Your task to perform on an android device: turn off location history Image 0: 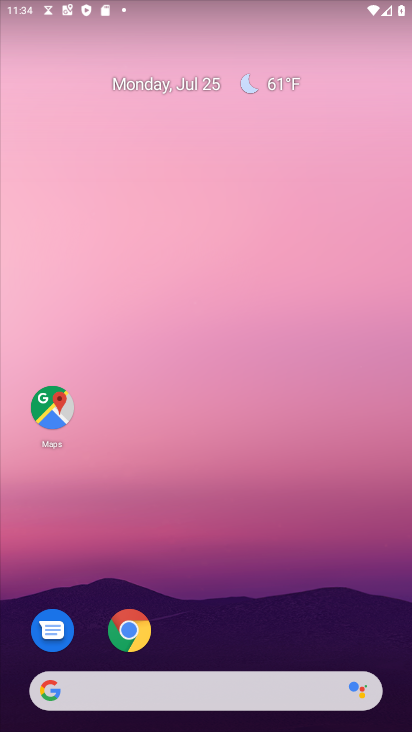
Step 0: drag from (269, 632) to (236, 103)
Your task to perform on an android device: turn off location history Image 1: 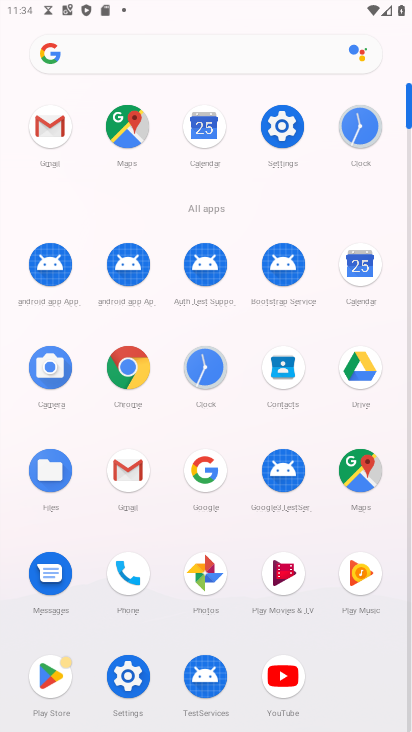
Step 1: click (271, 125)
Your task to perform on an android device: turn off location history Image 2: 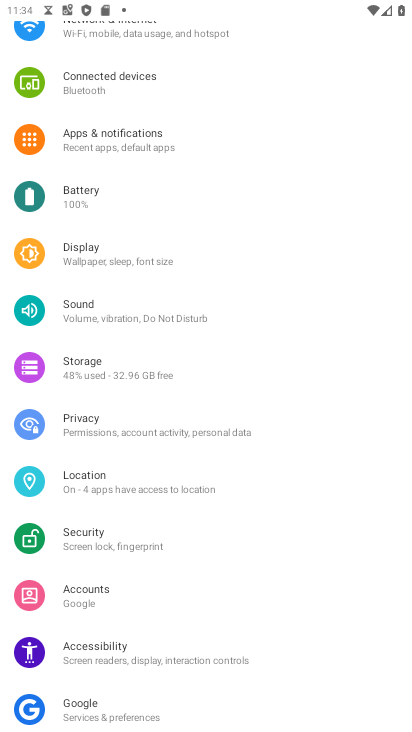
Step 2: click (88, 487)
Your task to perform on an android device: turn off location history Image 3: 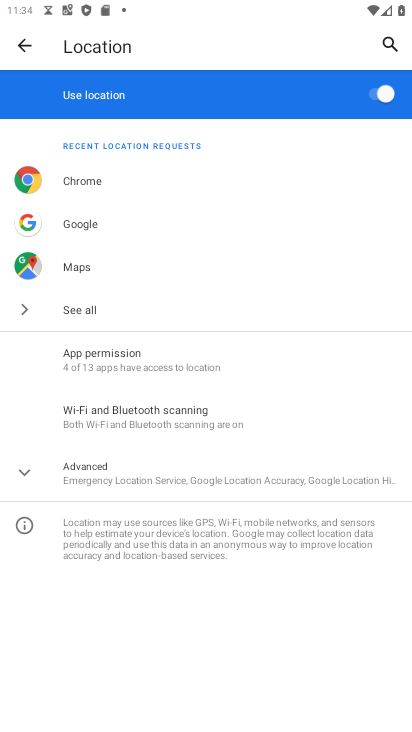
Step 3: click (82, 480)
Your task to perform on an android device: turn off location history Image 4: 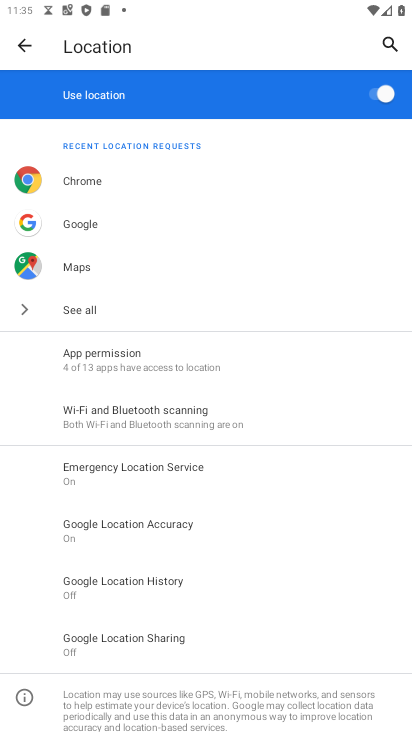
Step 4: click (130, 580)
Your task to perform on an android device: turn off location history Image 5: 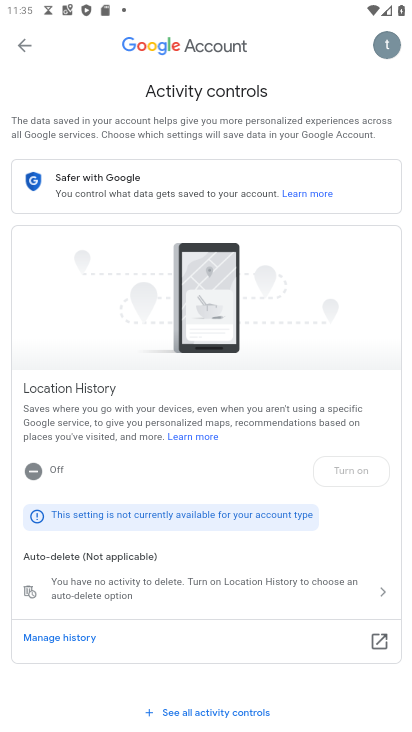
Step 5: task complete